Your task to perform on an android device: change timer sound Image 0: 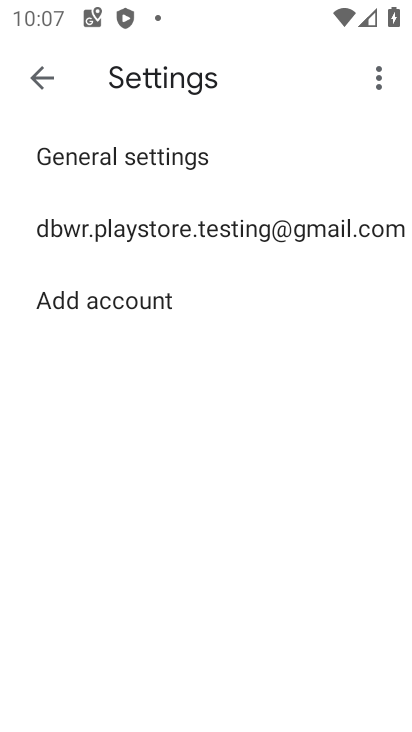
Step 0: press home button
Your task to perform on an android device: change timer sound Image 1: 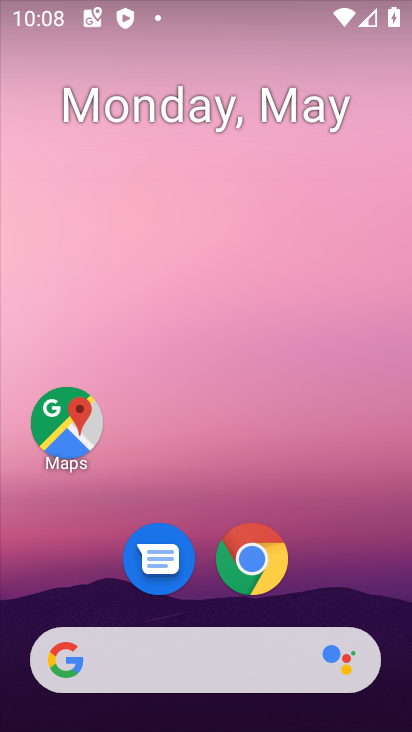
Step 1: drag from (282, 394) to (215, 9)
Your task to perform on an android device: change timer sound Image 2: 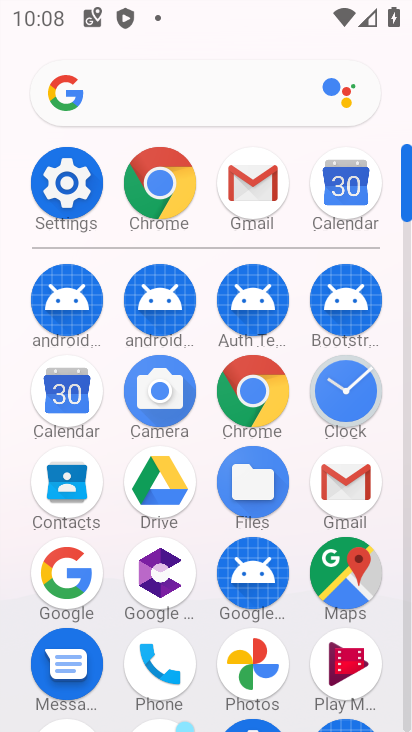
Step 2: click (351, 388)
Your task to perform on an android device: change timer sound Image 3: 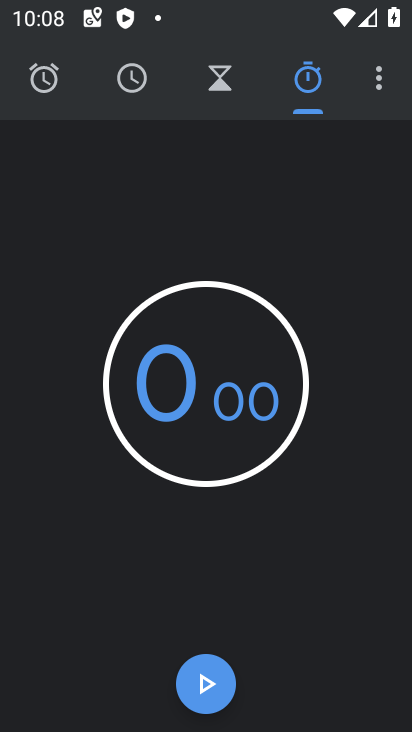
Step 3: click (379, 81)
Your task to perform on an android device: change timer sound Image 4: 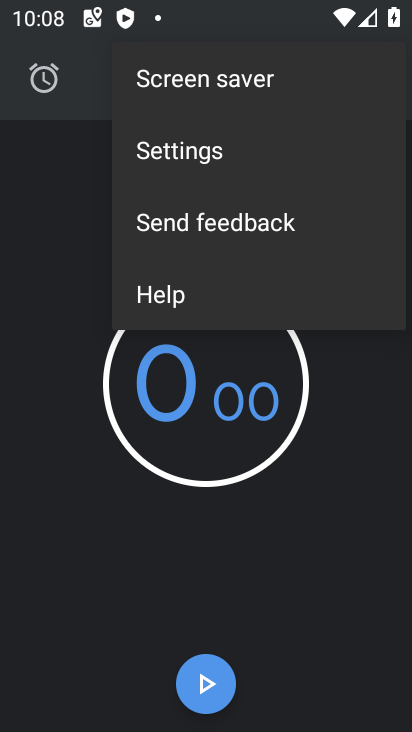
Step 4: click (185, 147)
Your task to perform on an android device: change timer sound Image 5: 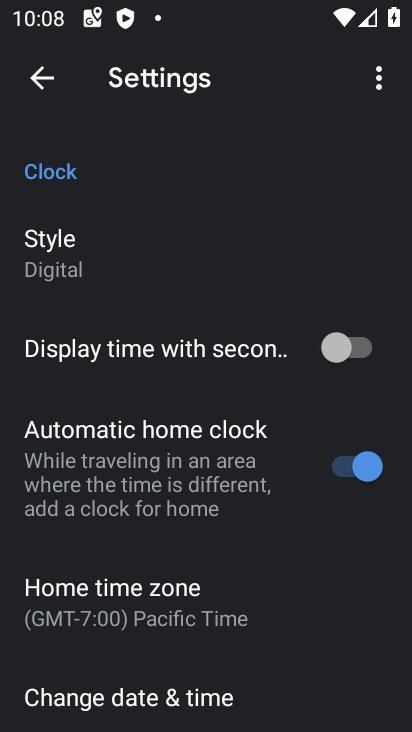
Step 5: drag from (260, 586) to (201, 216)
Your task to perform on an android device: change timer sound Image 6: 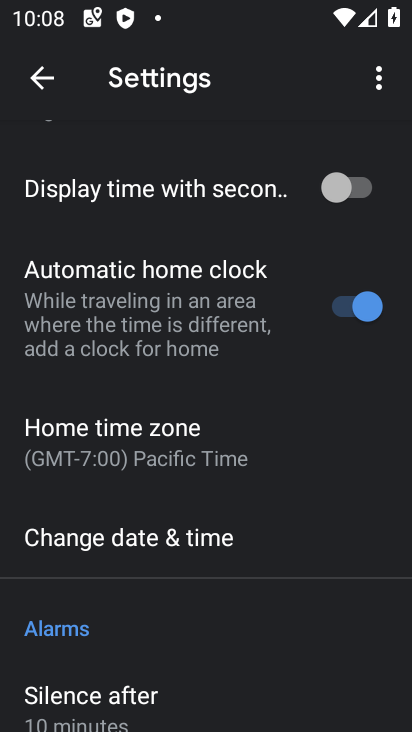
Step 6: drag from (199, 608) to (142, 207)
Your task to perform on an android device: change timer sound Image 7: 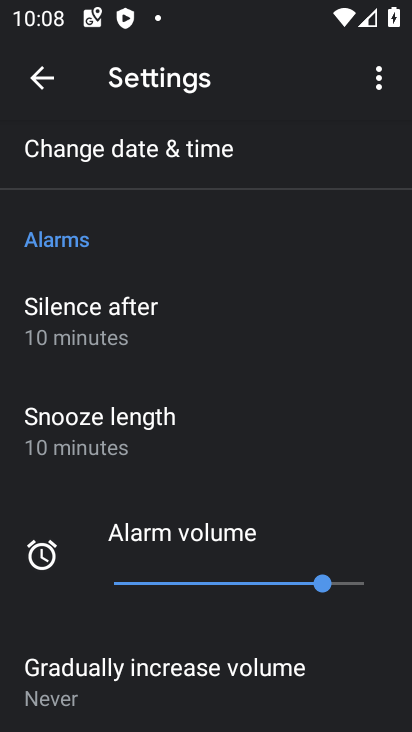
Step 7: drag from (188, 550) to (155, 273)
Your task to perform on an android device: change timer sound Image 8: 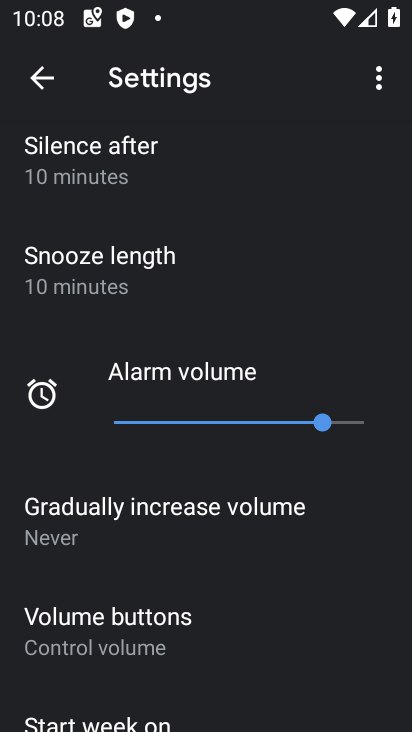
Step 8: drag from (241, 538) to (190, 262)
Your task to perform on an android device: change timer sound Image 9: 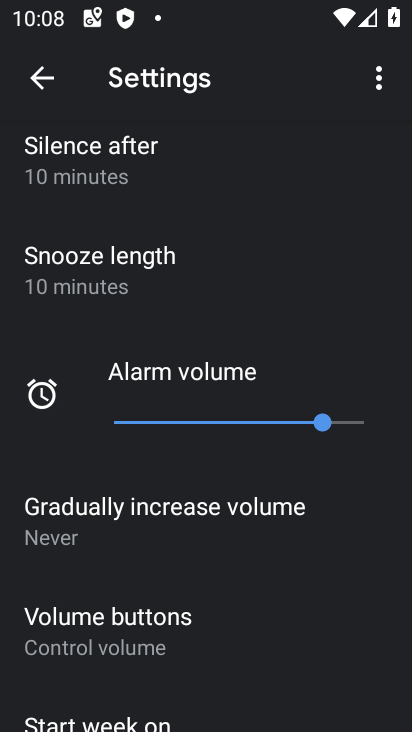
Step 9: drag from (229, 574) to (181, 215)
Your task to perform on an android device: change timer sound Image 10: 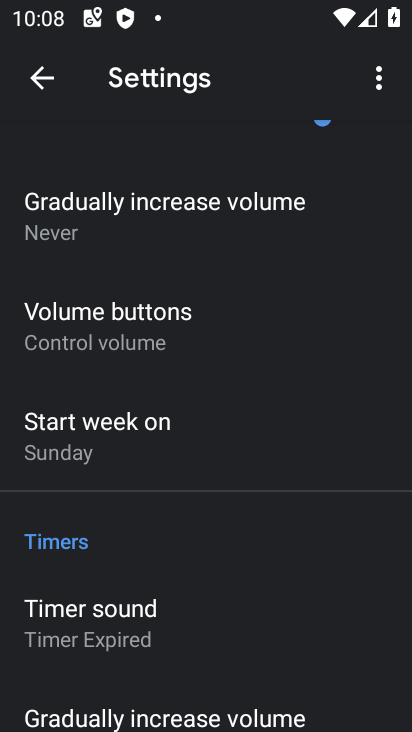
Step 10: click (122, 601)
Your task to perform on an android device: change timer sound Image 11: 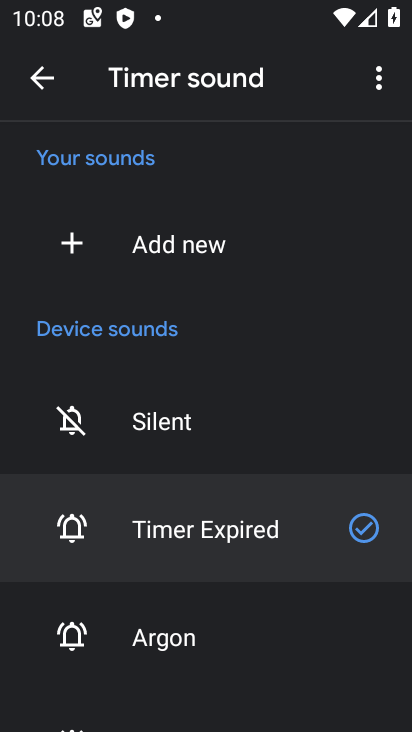
Step 11: click (179, 660)
Your task to perform on an android device: change timer sound Image 12: 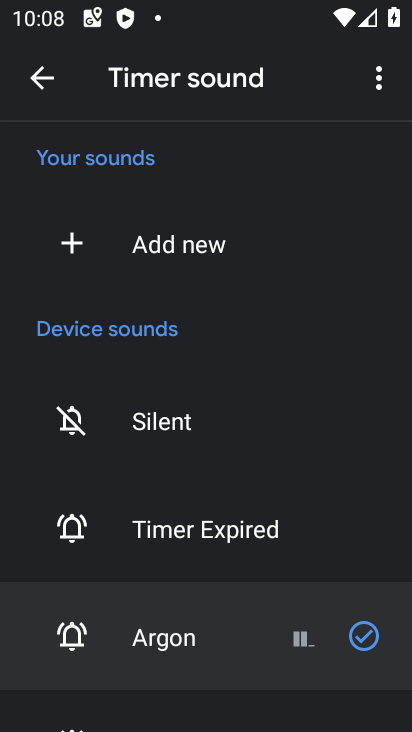
Step 12: task complete